Your task to perform on an android device: Open Youtube and go to "Your channel" Image 0: 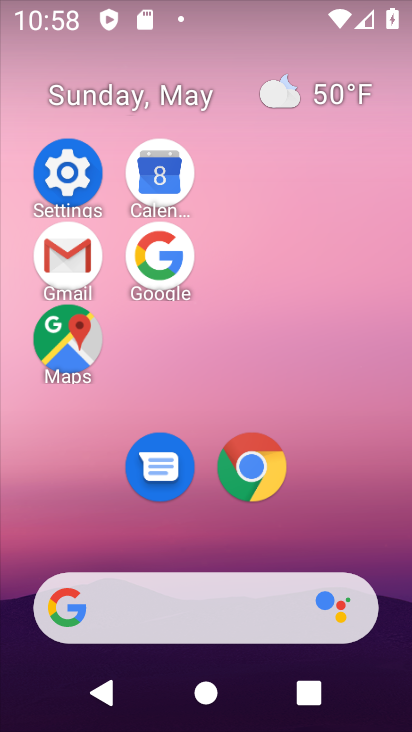
Step 0: drag from (195, 563) to (254, 95)
Your task to perform on an android device: Open Youtube and go to "Your channel" Image 1: 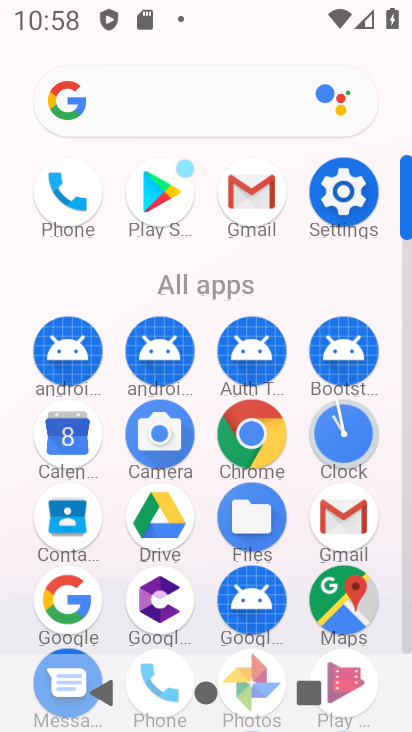
Step 1: drag from (271, 563) to (303, 80)
Your task to perform on an android device: Open Youtube and go to "Your channel" Image 2: 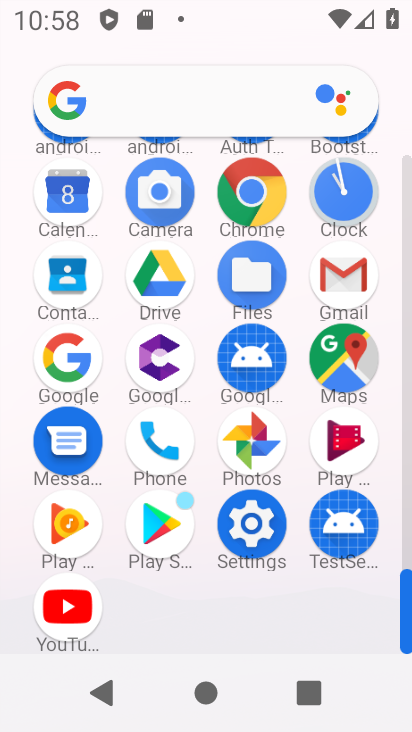
Step 2: click (75, 601)
Your task to perform on an android device: Open Youtube and go to "Your channel" Image 3: 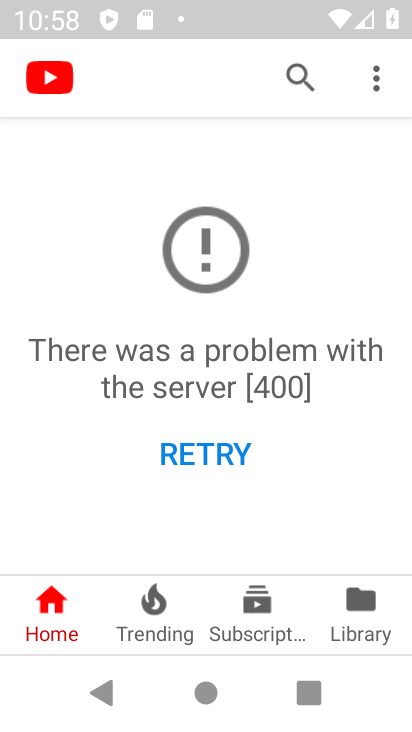
Step 3: click (364, 637)
Your task to perform on an android device: Open Youtube and go to "Your channel" Image 4: 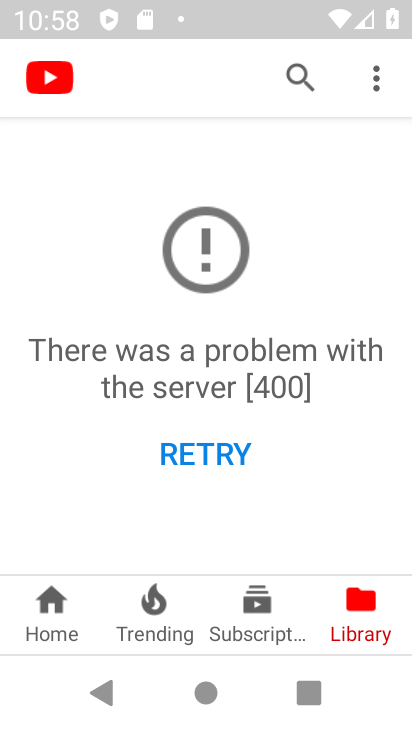
Step 4: task complete